Your task to perform on an android device: check out phone information Image 0: 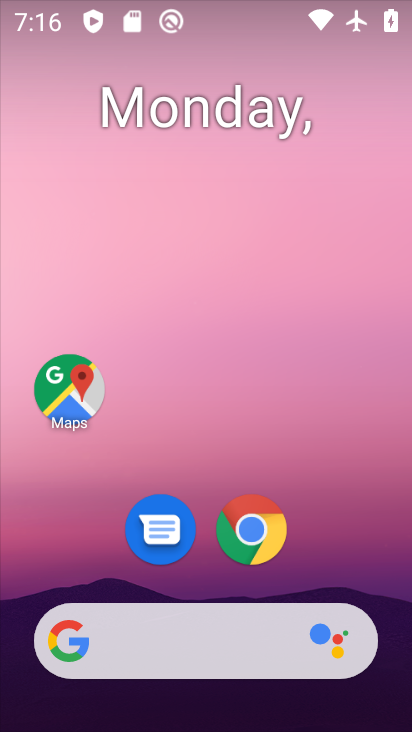
Step 0: drag from (324, 528) to (232, 91)
Your task to perform on an android device: check out phone information Image 1: 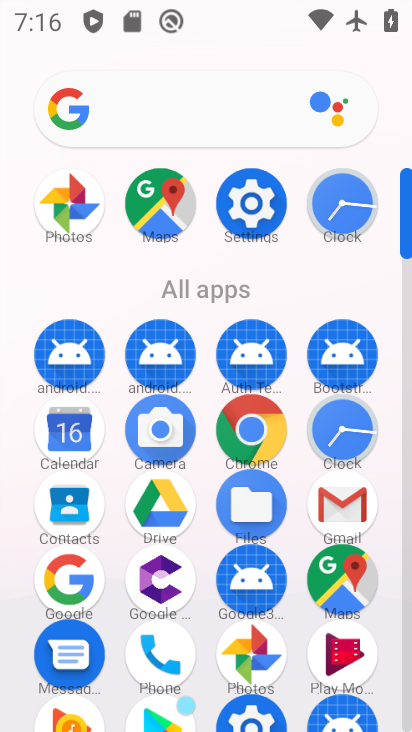
Step 1: click (245, 199)
Your task to perform on an android device: check out phone information Image 2: 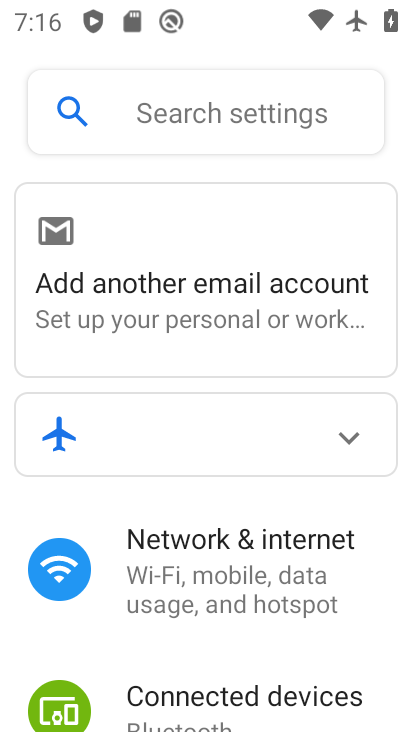
Step 2: drag from (282, 668) to (222, 209)
Your task to perform on an android device: check out phone information Image 3: 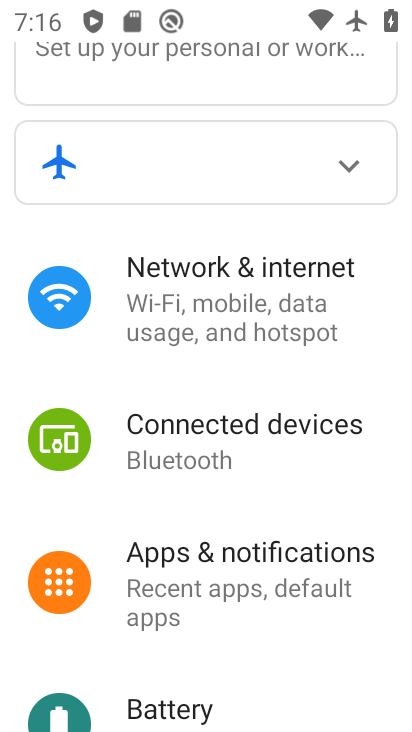
Step 3: drag from (292, 620) to (240, 279)
Your task to perform on an android device: check out phone information Image 4: 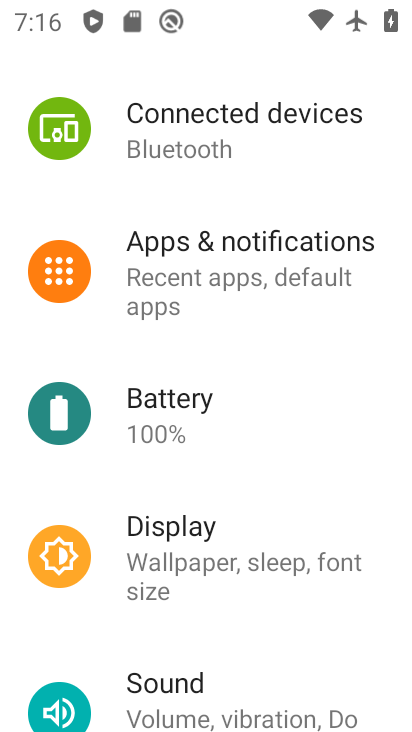
Step 4: drag from (251, 446) to (204, 133)
Your task to perform on an android device: check out phone information Image 5: 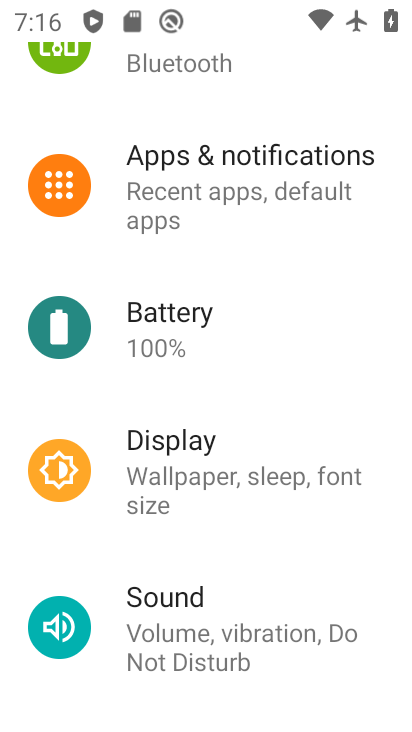
Step 5: drag from (256, 564) to (265, 62)
Your task to perform on an android device: check out phone information Image 6: 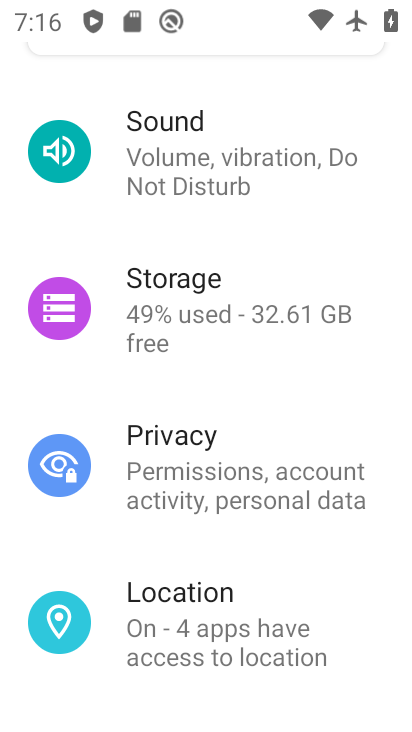
Step 6: drag from (281, 538) to (241, 25)
Your task to perform on an android device: check out phone information Image 7: 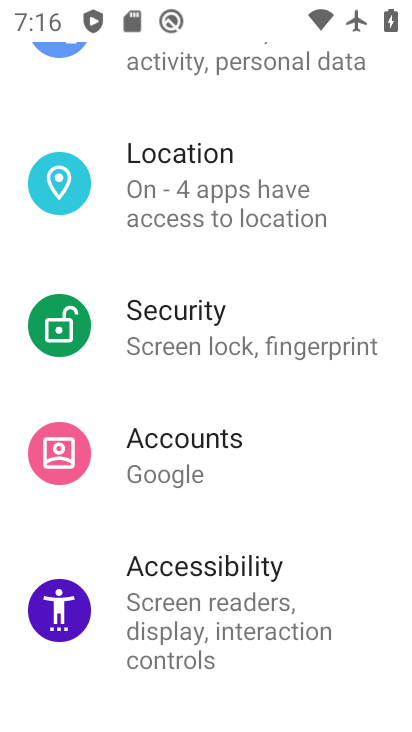
Step 7: drag from (299, 487) to (249, 6)
Your task to perform on an android device: check out phone information Image 8: 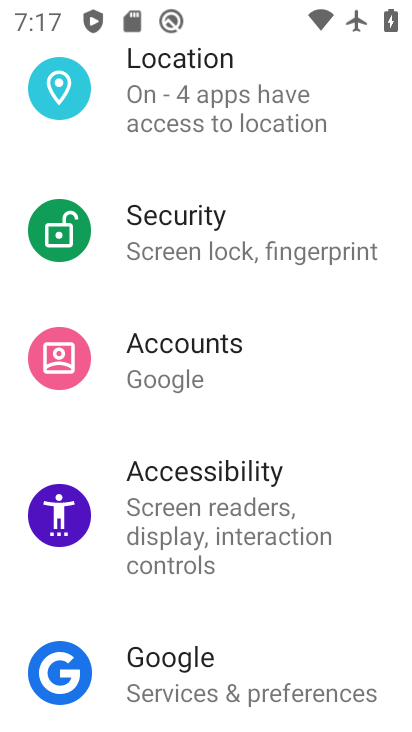
Step 8: drag from (240, 628) to (213, 119)
Your task to perform on an android device: check out phone information Image 9: 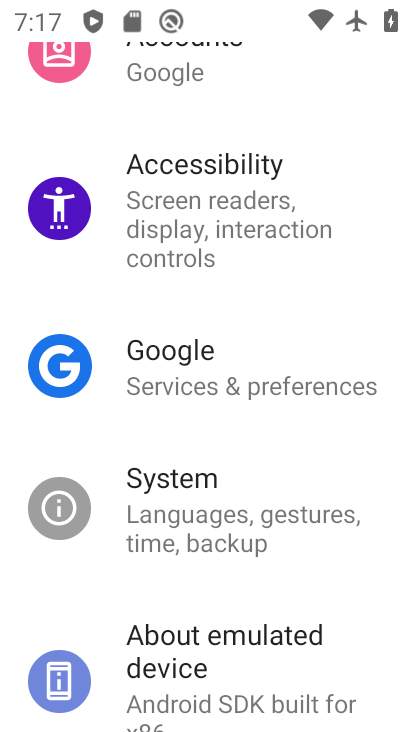
Step 9: click (163, 654)
Your task to perform on an android device: check out phone information Image 10: 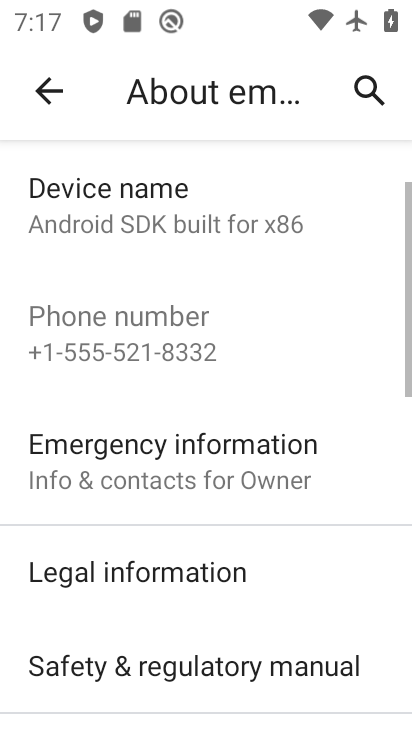
Step 10: task complete